Your task to perform on an android device: Search for Italian restaurants on Maps Image 0: 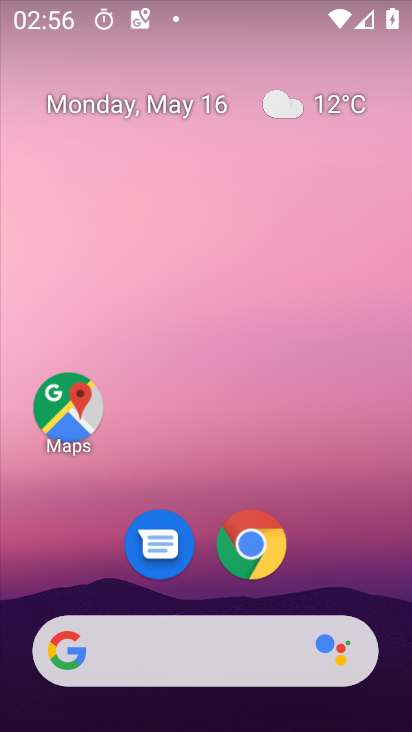
Step 0: drag from (221, 721) to (225, 325)
Your task to perform on an android device: Search for Italian restaurants on Maps Image 1: 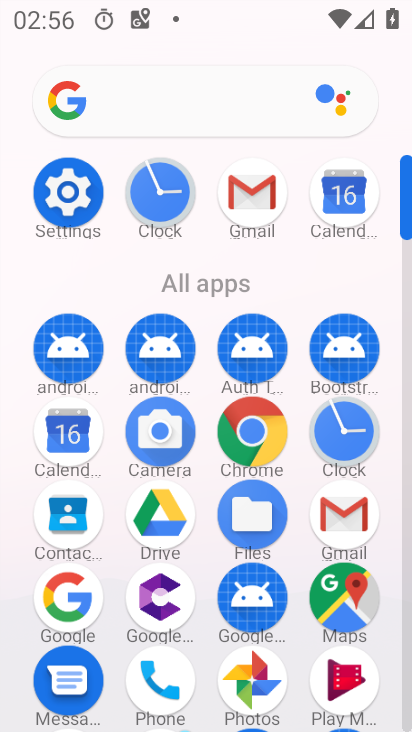
Step 1: click (336, 605)
Your task to perform on an android device: Search for Italian restaurants on Maps Image 2: 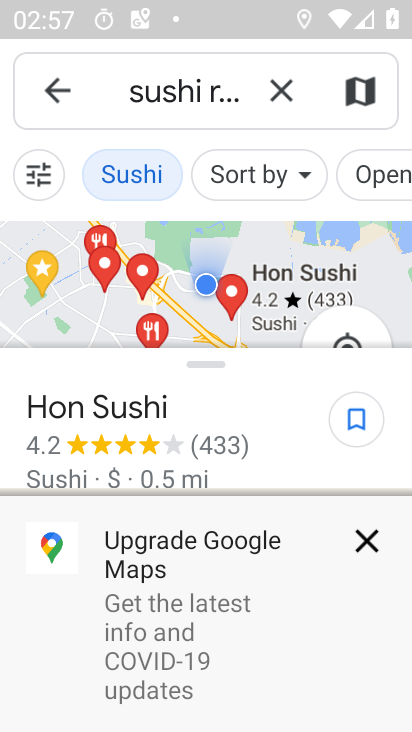
Step 2: click (286, 89)
Your task to perform on an android device: Search for Italian restaurants on Maps Image 3: 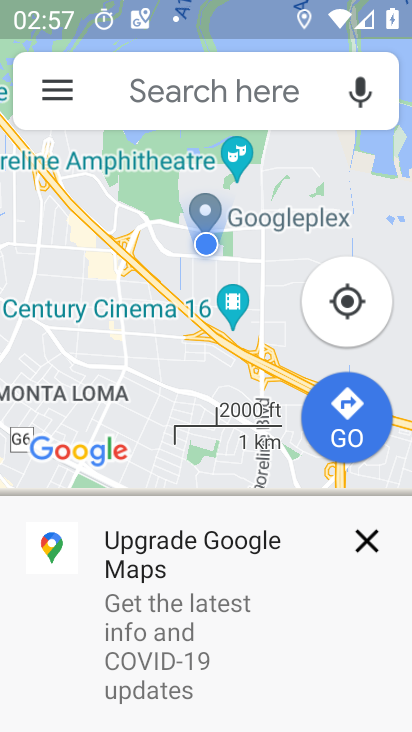
Step 3: click (163, 88)
Your task to perform on an android device: Search for Italian restaurants on Maps Image 4: 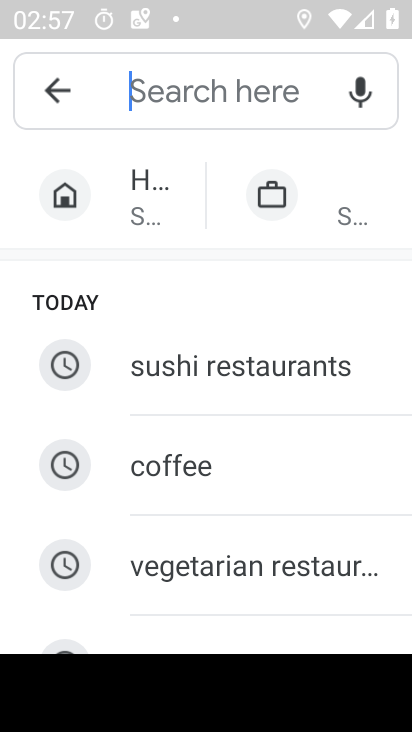
Step 4: type "Italian restaurants"
Your task to perform on an android device: Search for Italian restaurants on Maps Image 5: 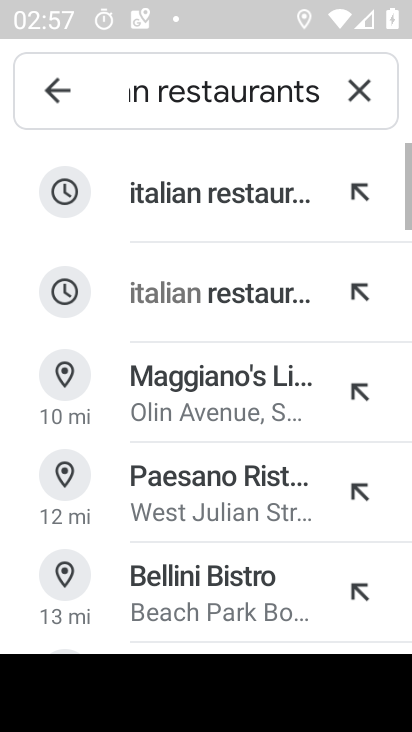
Step 5: click (167, 187)
Your task to perform on an android device: Search for Italian restaurants on Maps Image 6: 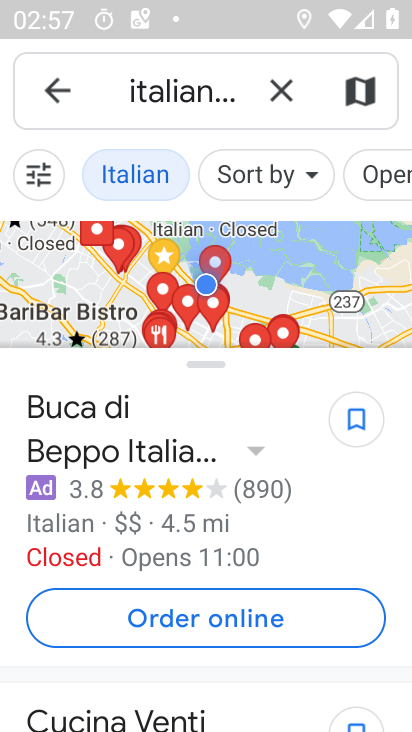
Step 6: task complete